Your task to perform on an android device: turn off javascript in the chrome app Image 0: 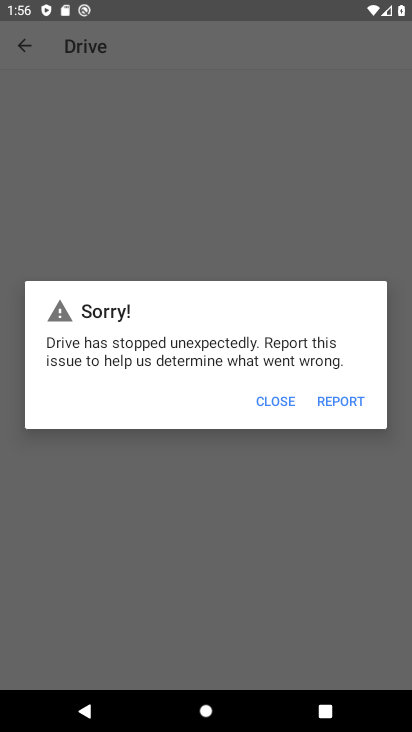
Step 0: press home button
Your task to perform on an android device: turn off javascript in the chrome app Image 1: 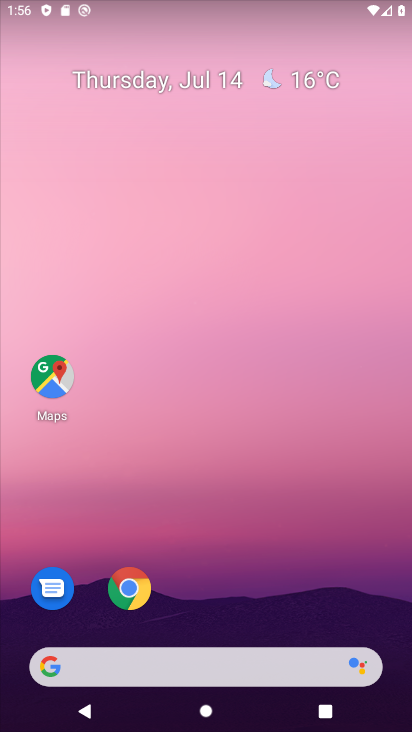
Step 1: click (128, 582)
Your task to perform on an android device: turn off javascript in the chrome app Image 2: 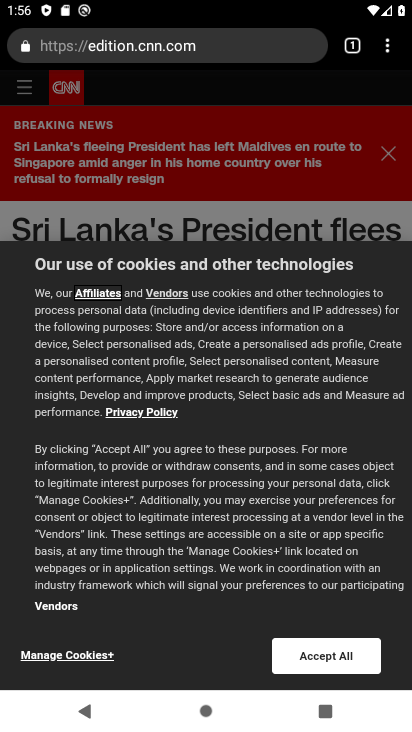
Step 2: click (390, 53)
Your task to perform on an android device: turn off javascript in the chrome app Image 3: 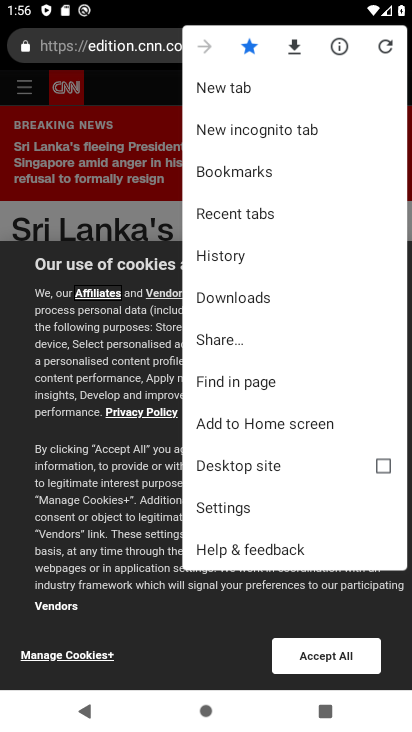
Step 3: click (233, 514)
Your task to perform on an android device: turn off javascript in the chrome app Image 4: 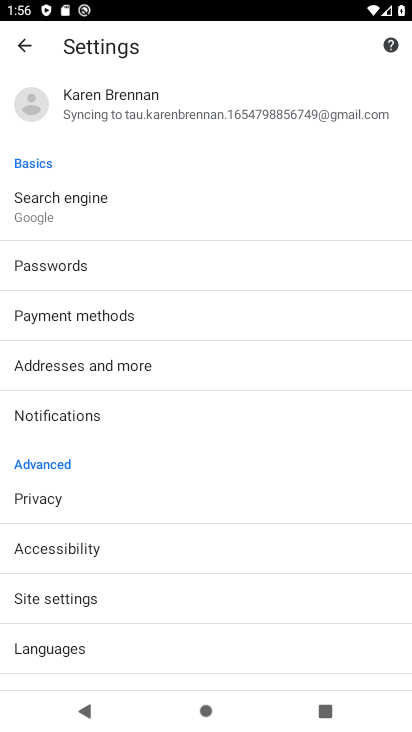
Step 4: click (70, 599)
Your task to perform on an android device: turn off javascript in the chrome app Image 5: 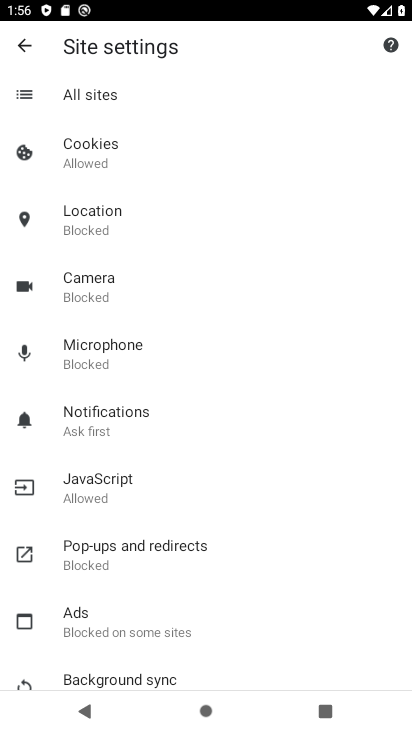
Step 5: click (109, 477)
Your task to perform on an android device: turn off javascript in the chrome app Image 6: 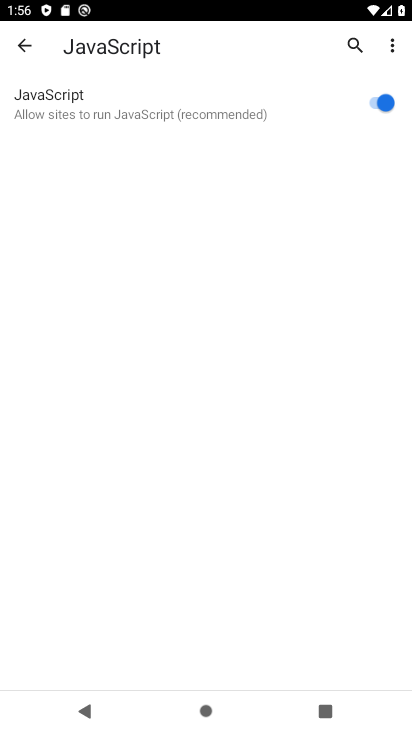
Step 6: click (368, 101)
Your task to perform on an android device: turn off javascript in the chrome app Image 7: 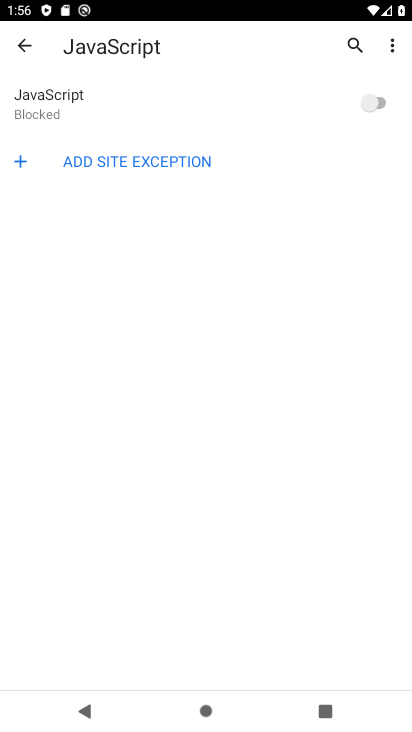
Step 7: task complete